Your task to perform on an android device: Search for vegetarian restaurants on Maps Image 0: 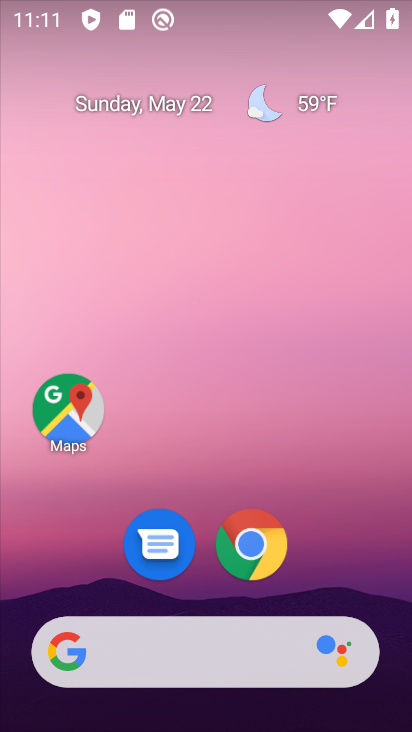
Step 0: drag from (337, 588) to (14, 7)
Your task to perform on an android device: Search for vegetarian restaurants on Maps Image 1: 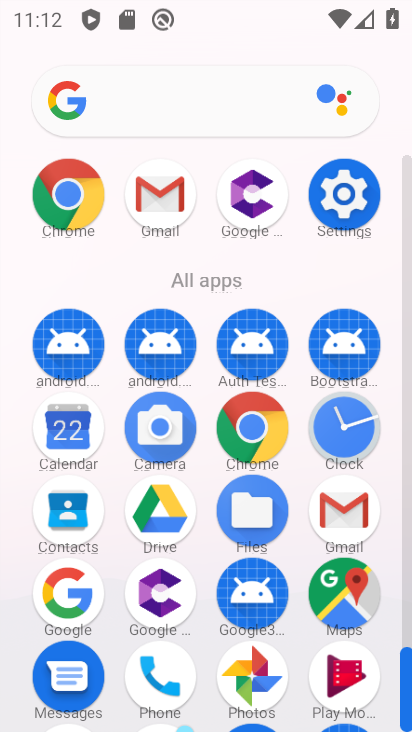
Step 1: click (345, 600)
Your task to perform on an android device: Search for vegetarian restaurants on Maps Image 2: 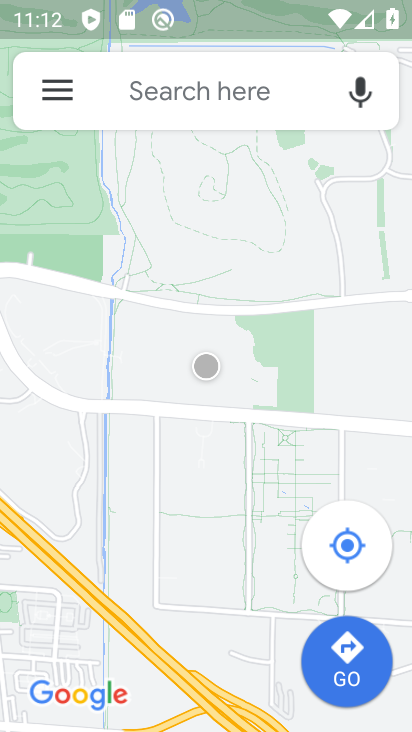
Step 2: click (208, 90)
Your task to perform on an android device: Search for vegetarian restaurants on Maps Image 3: 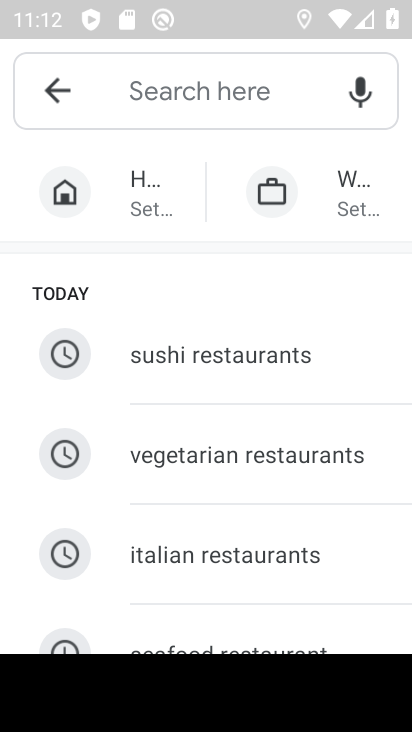
Step 3: click (268, 449)
Your task to perform on an android device: Search for vegetarian restaurants on Maps Image 4: 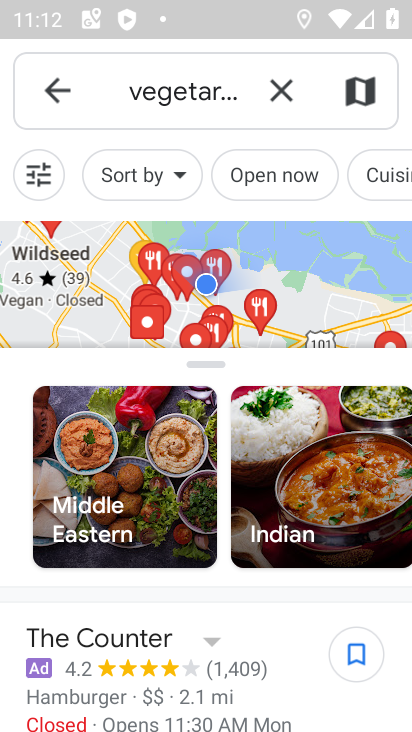
Step 4: task complete